Your task to perform on an android device: Open maps Image 0: 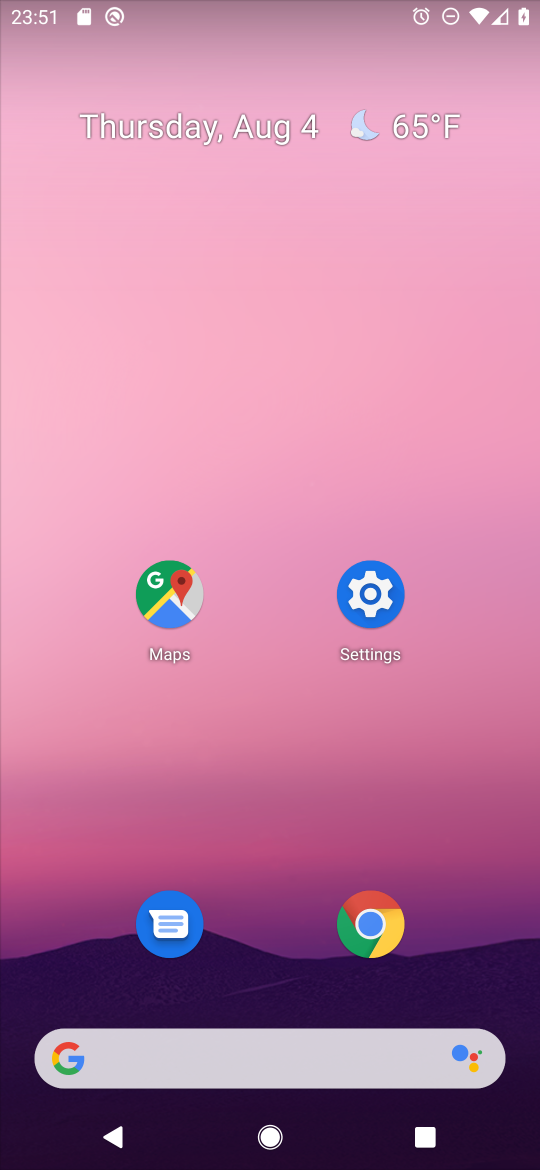
Step 0: press home button
Your task to perform on an android device: Open maps Image 1: 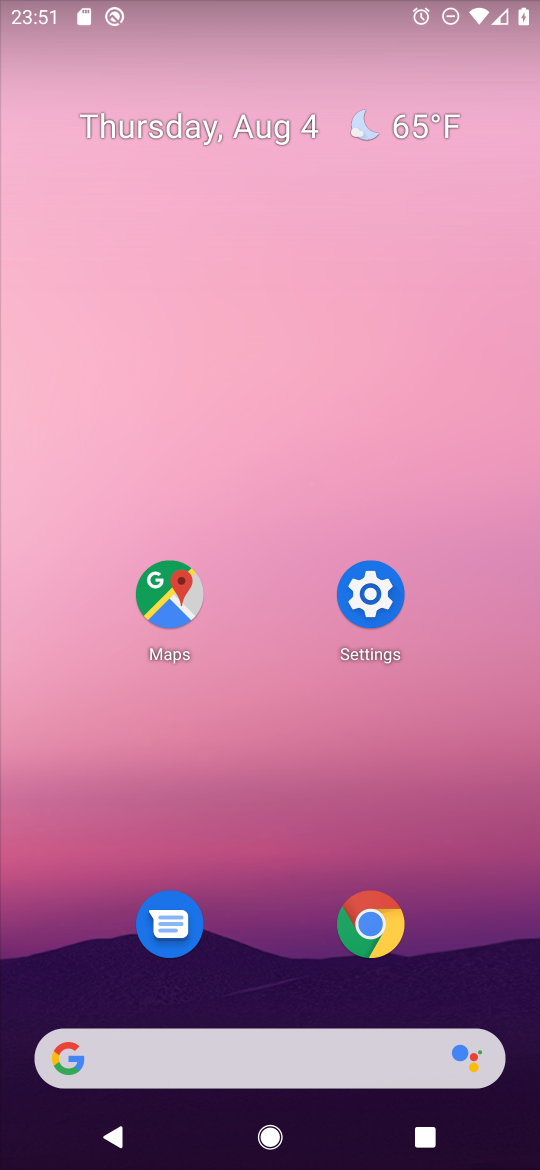
Step 1: click (171, 592)
Your task to perform on an android device: Open maps Image 2: 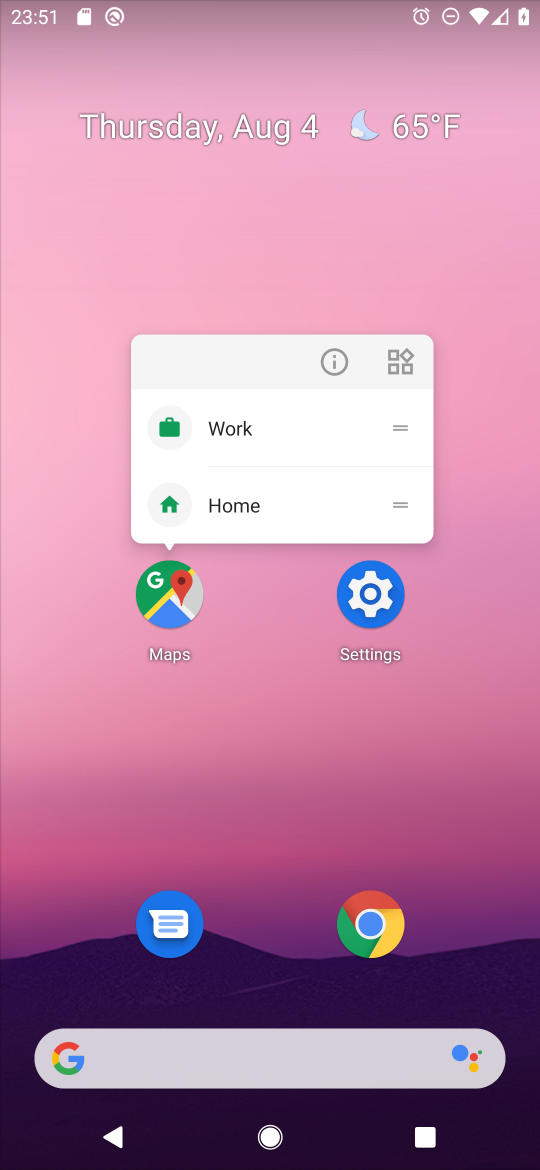
Step 2: click (172, 596)
Your task to perform on an android device: Open maps Image 3: 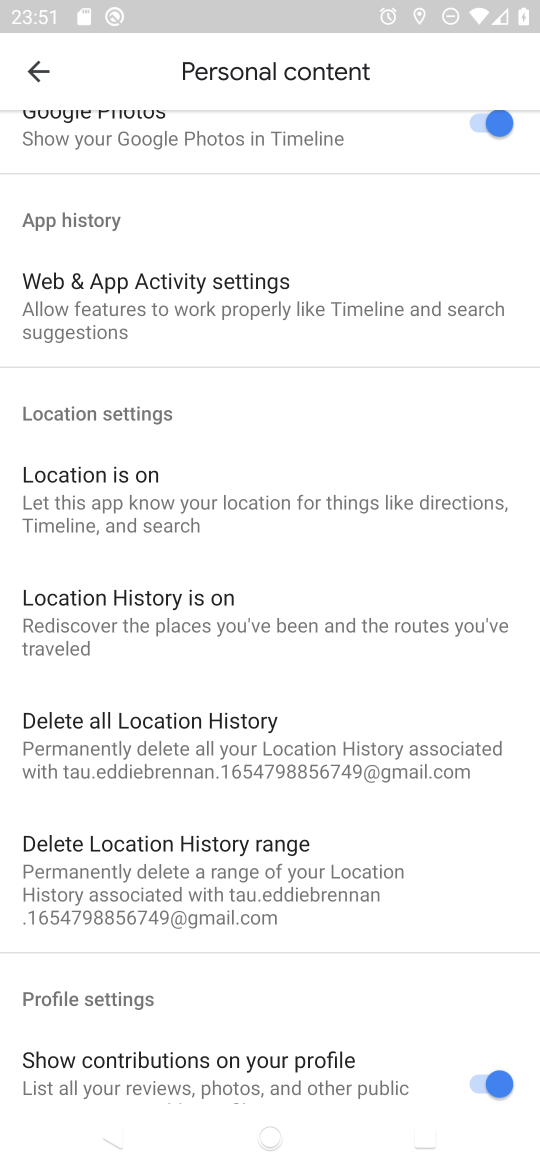
Step 3: click (39, 67)
Your task to perform on an android device: Open maps Image 4: 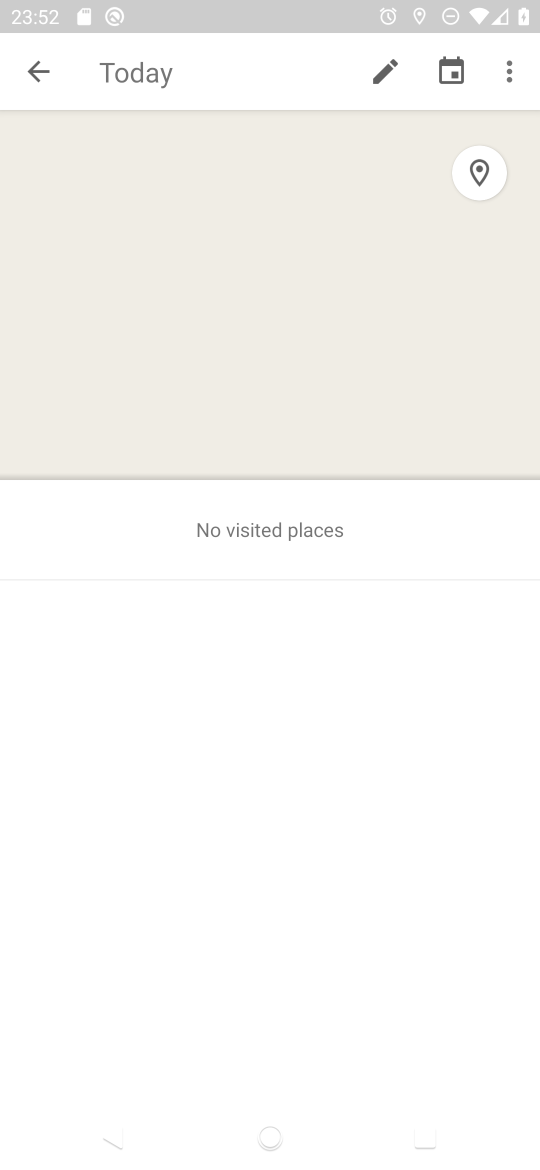
Step 4: click (35, 74)
Your task to perform on an android device: Open maps Image 5: 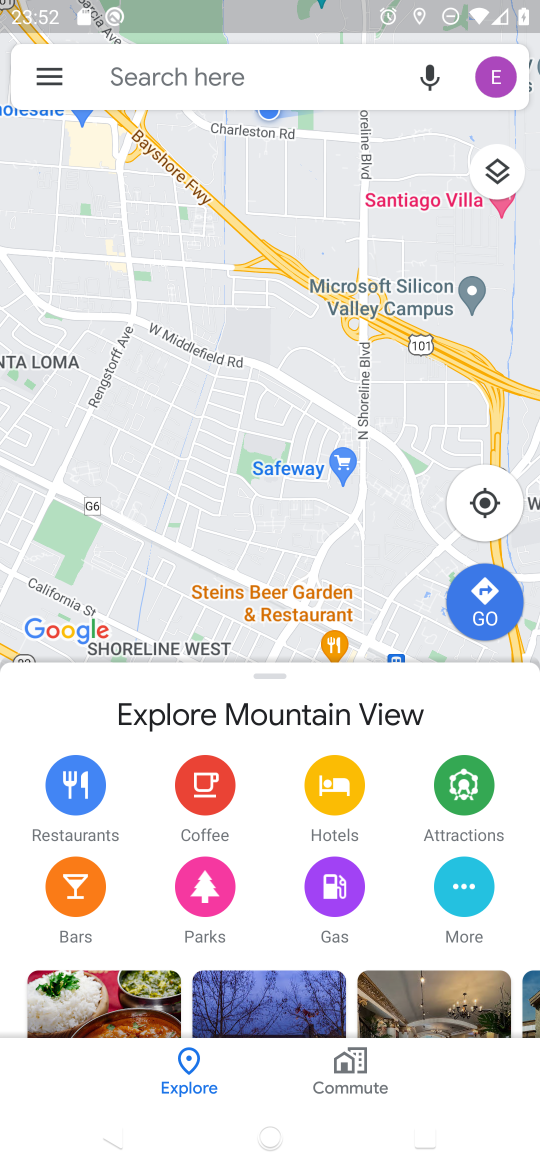
Step 5: task complete